Your task to perform on an android device: turn pop-ups off in chrome Image 0: 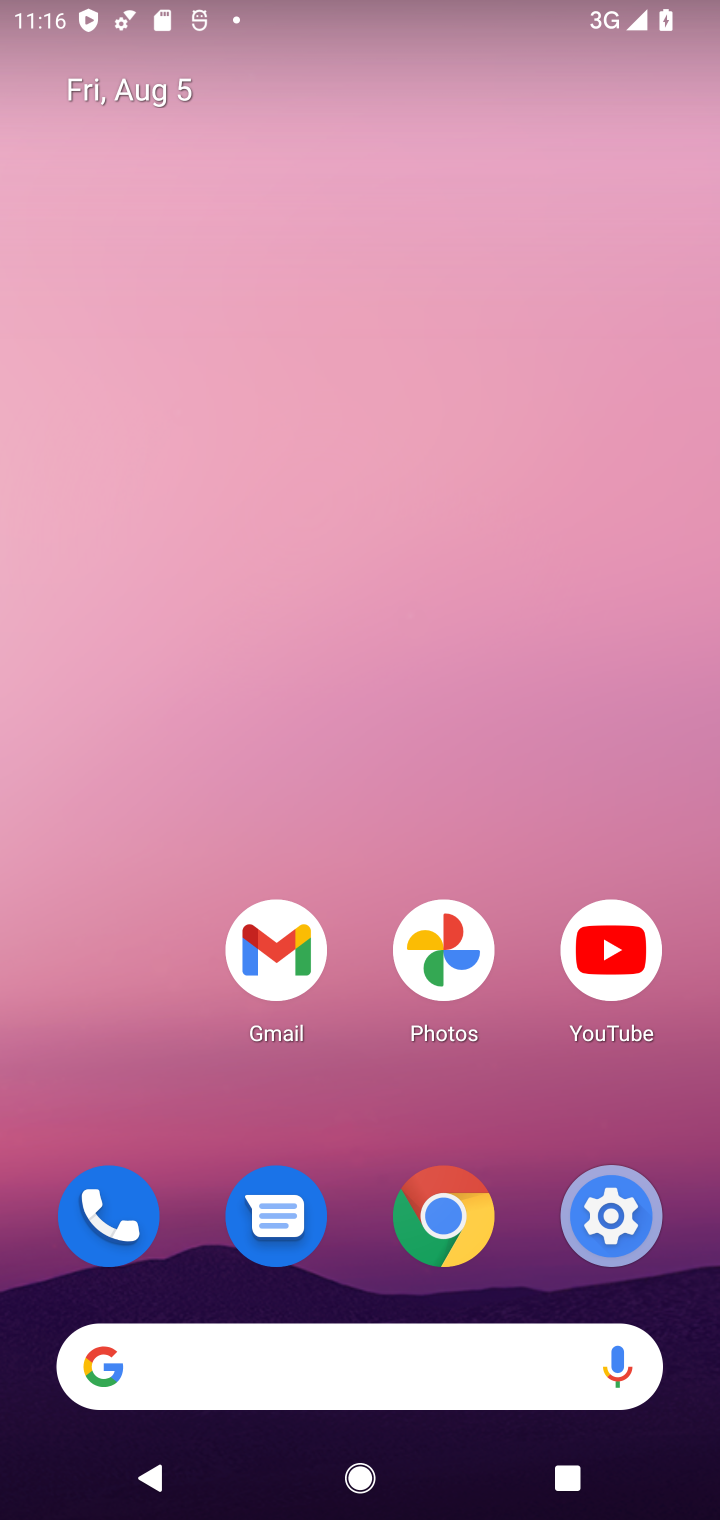
Step 0: drag from (433, 1368) to (530, 0)
Your task to perform on an android device: turn pop-ups off in chrome Image 1: 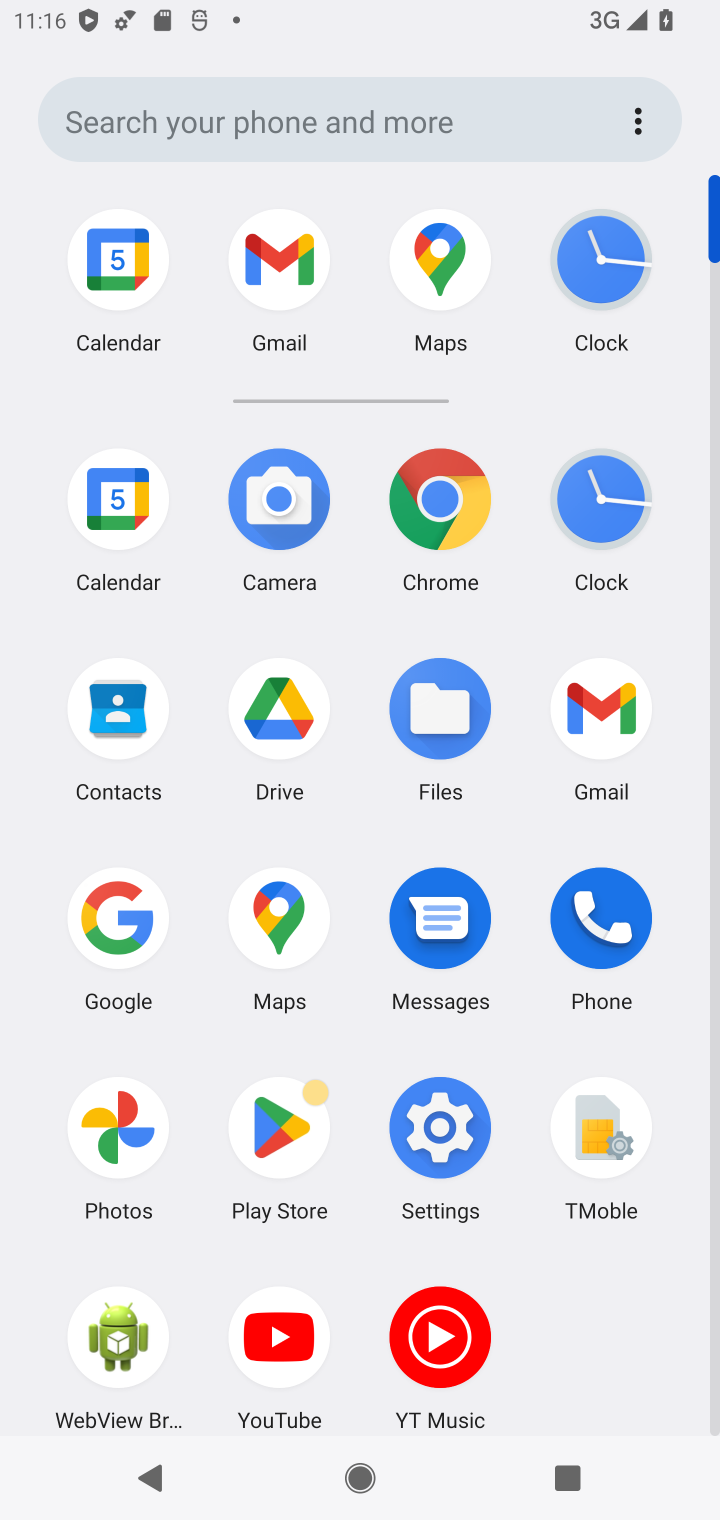
Step 1: click (445, 504)
Your task to perform on an android device: turn pop-ups off in chrome Image 2: 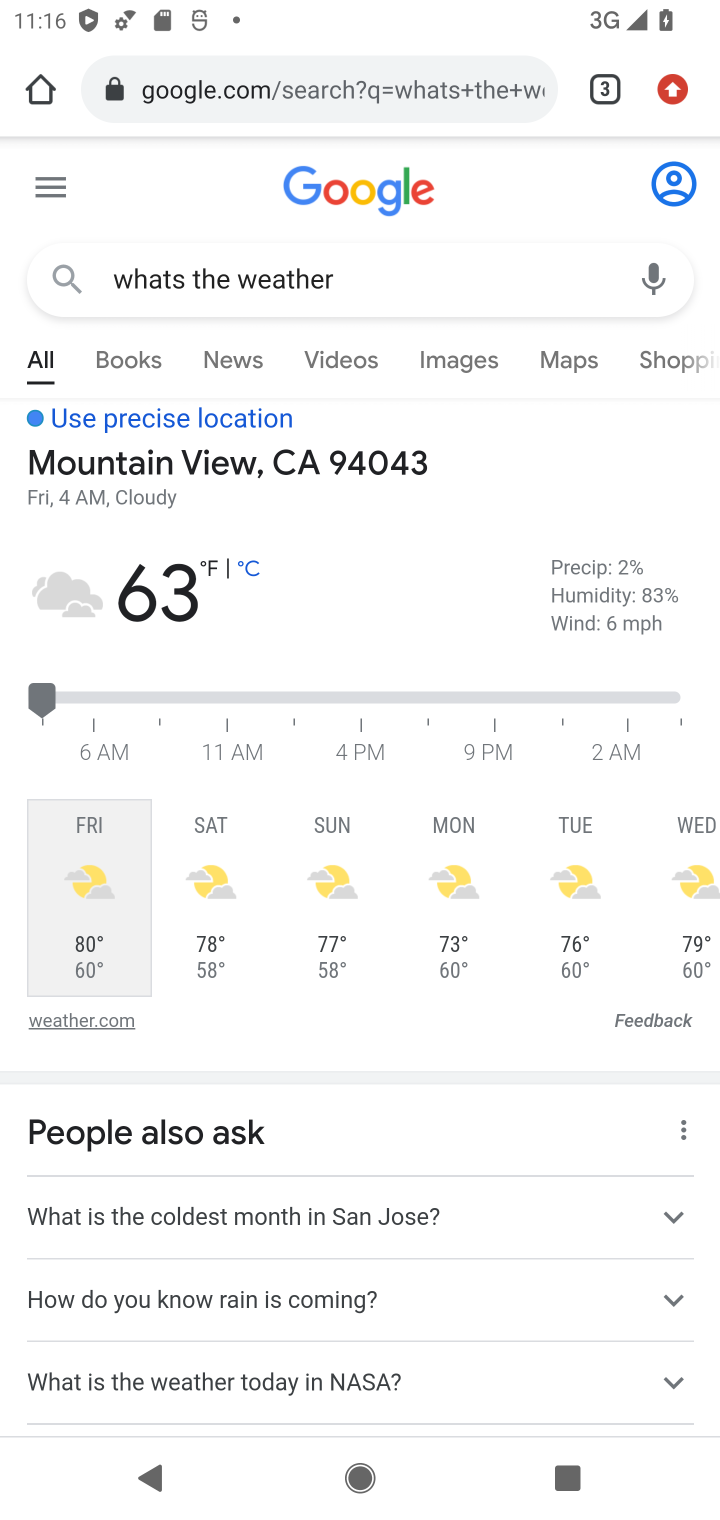
Step 2: click (664, 91)
Your task to perform on an android device: turn pop-ups off in chrome Image 3: 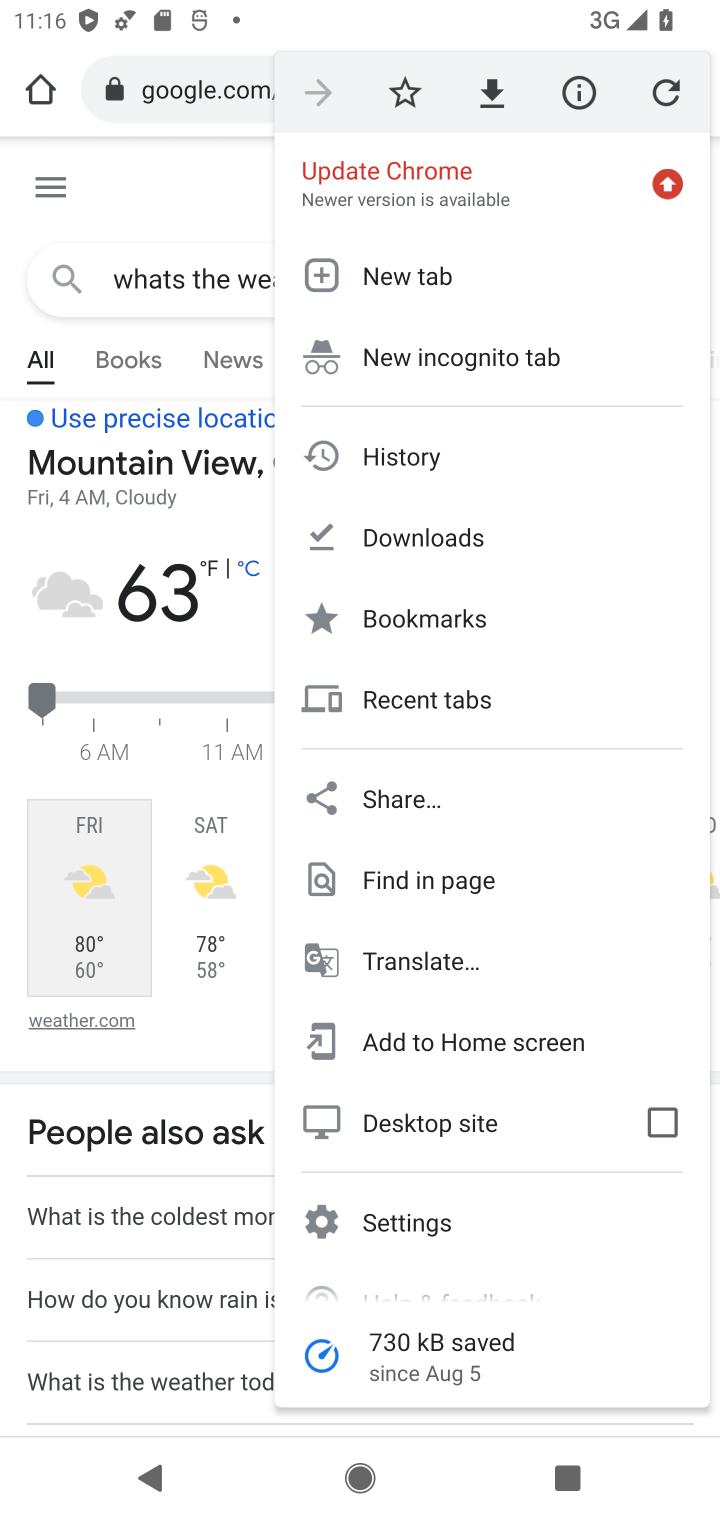
Step 3: click (437, 1218)
Your task to perform on an android device: turn pop-ups off in chrome Image 4: 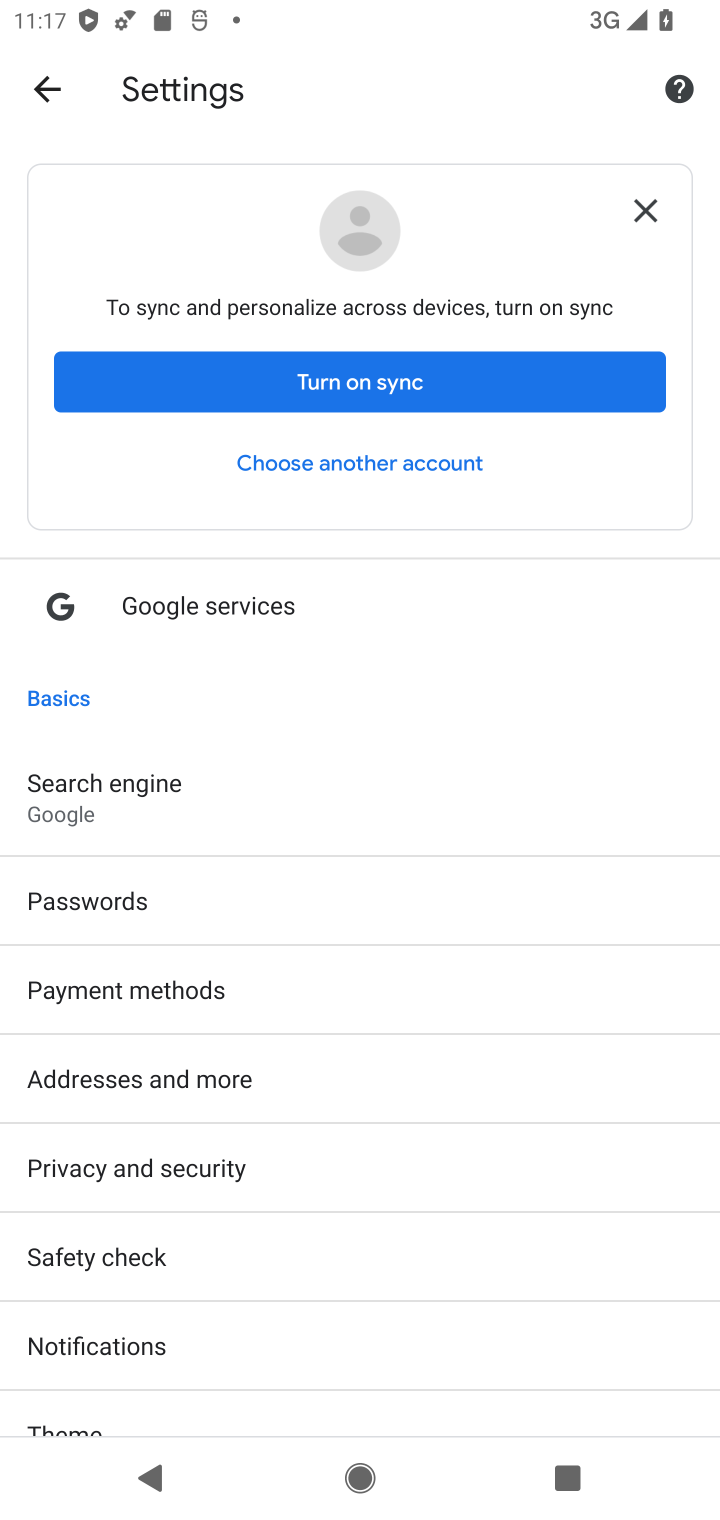
Step 4: drag from (278, 1369) to (302, 743)
Your task to perform on an android device: turn pop-ups off in chrome Image 5: 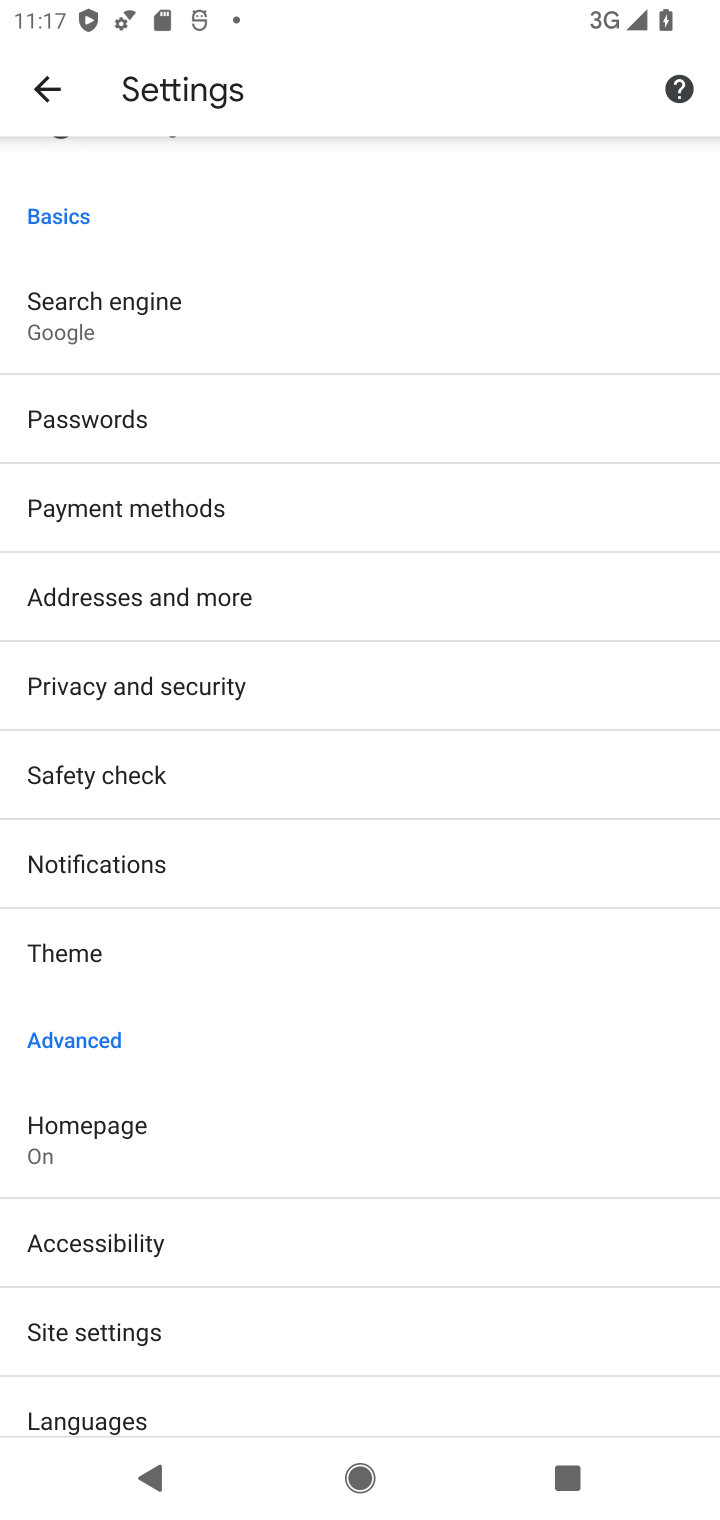
Step 5: click (125, 1321)
Your task to perform on an android device: turn pop-ups off in chrome Image 6: 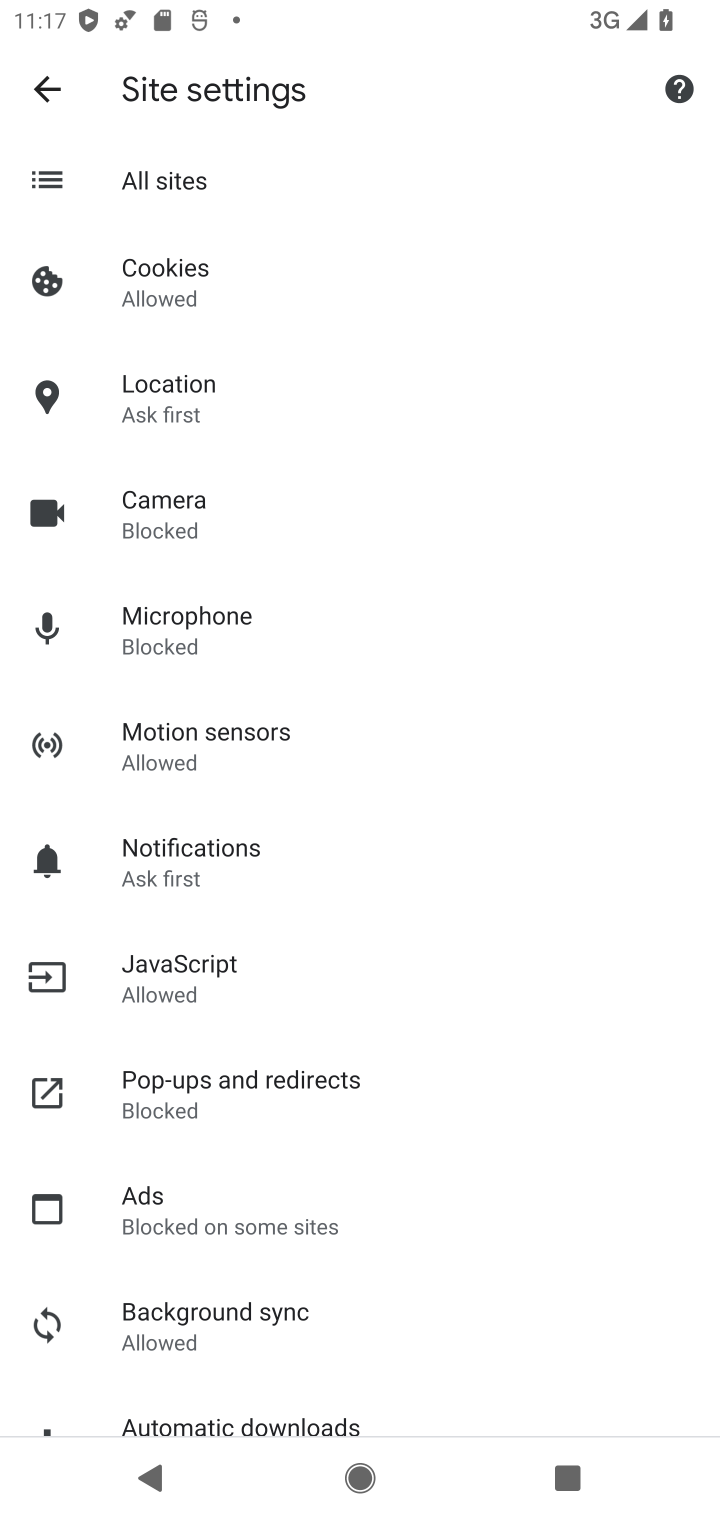
Step 6: click (227, 1089)
Your task to perform on an android device: turn pop-ups off in chrome Image 7: 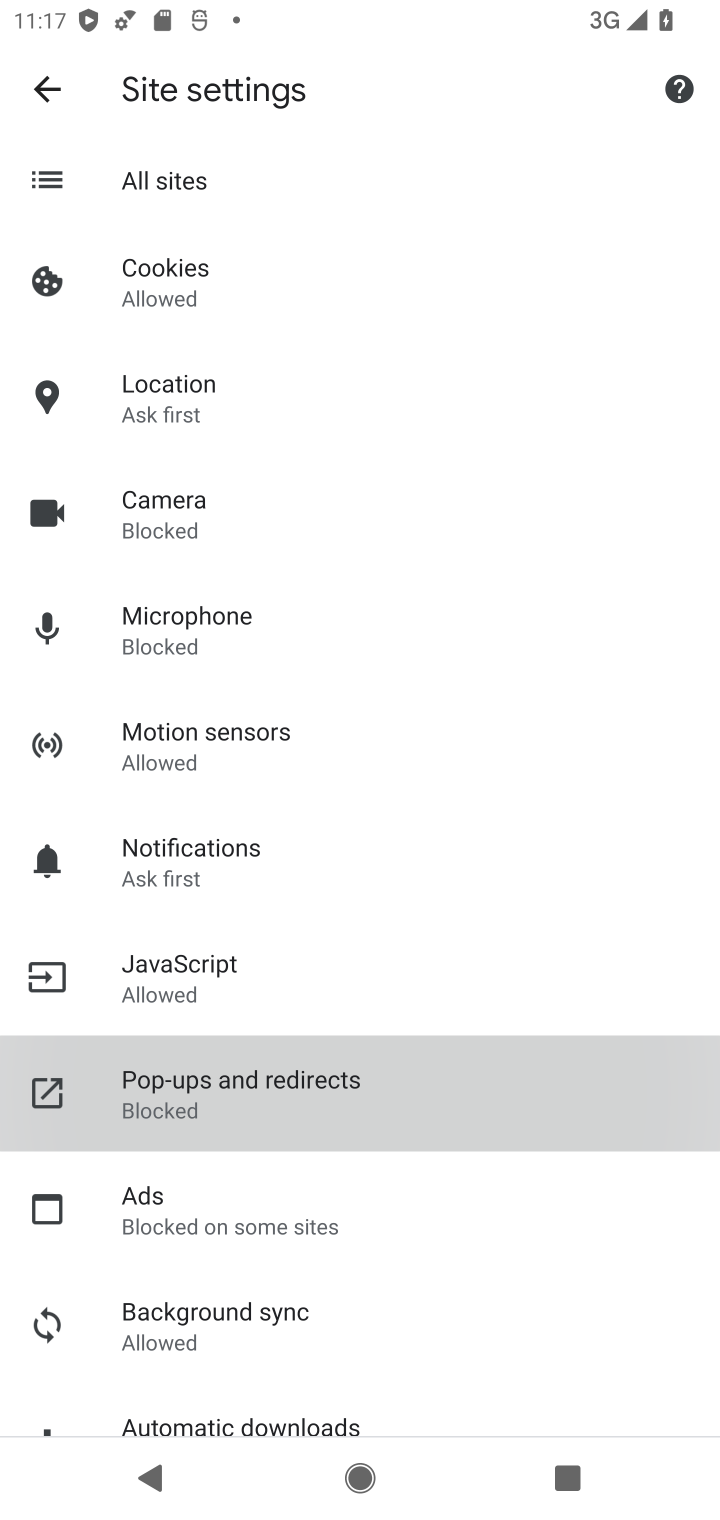
Step 7: click (227, 1089)
Your task to perform on an android device: turn pop-ups off in chrome Image 8: 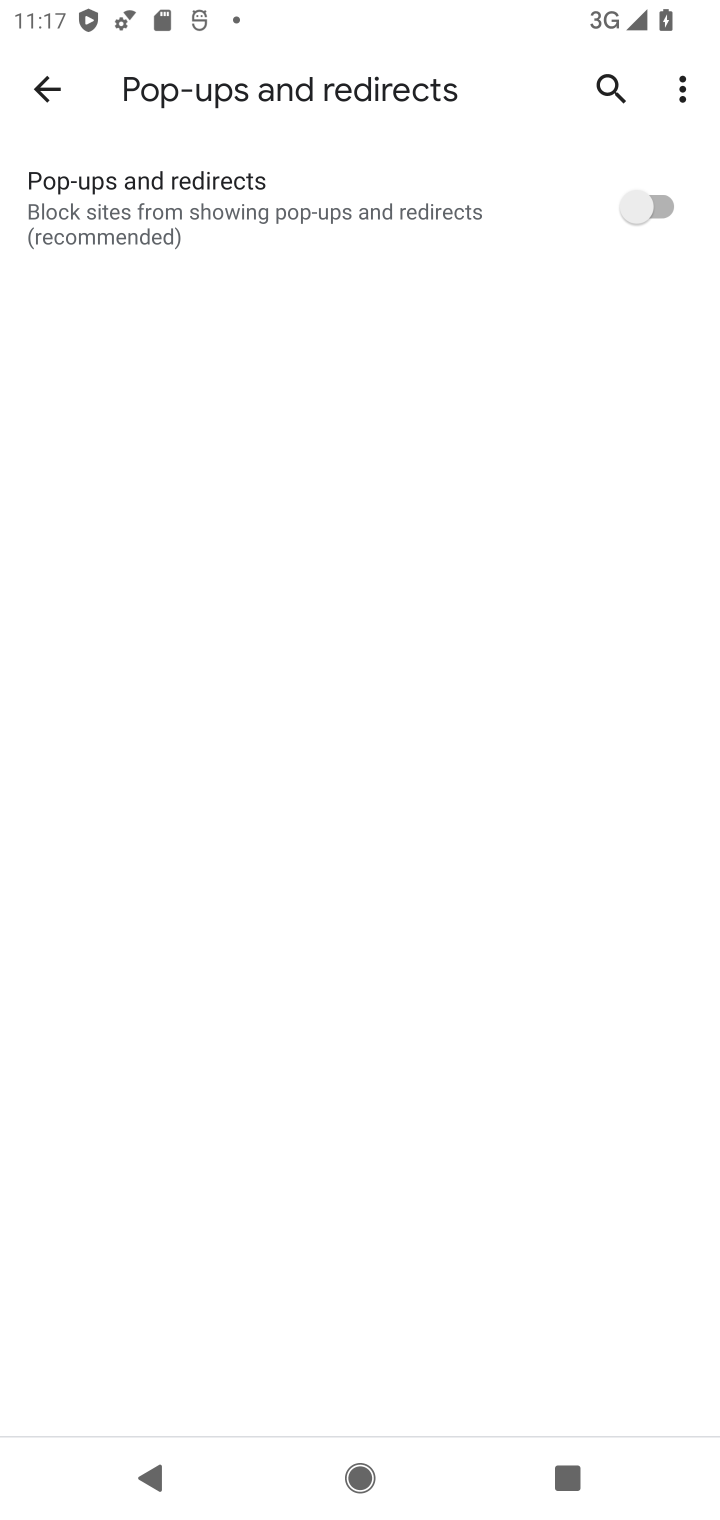
Step 8: task complete